Your task to perform on an android device: Open location settings Image 0: 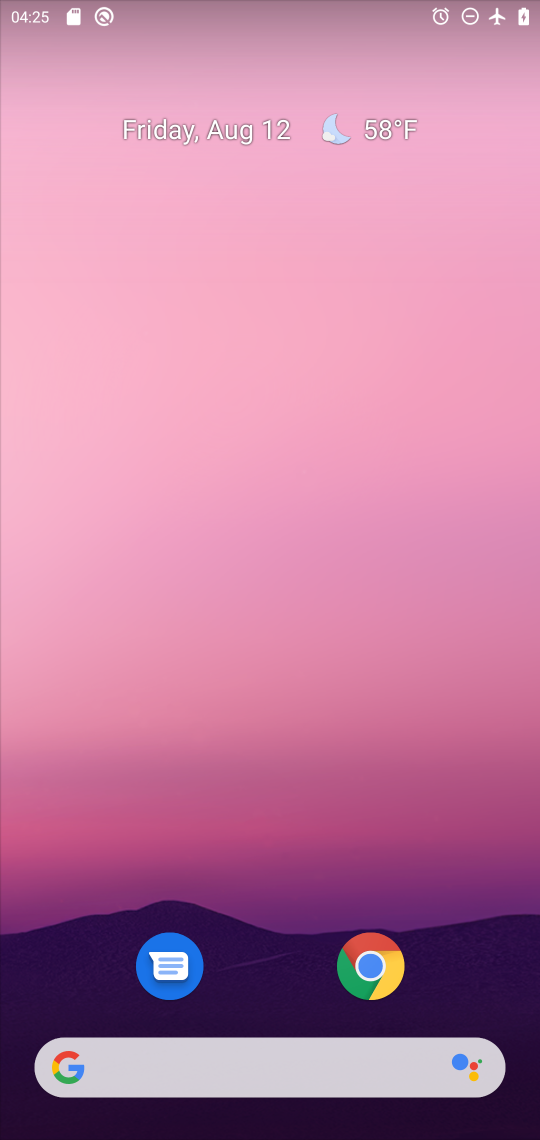
Step 0: drag from (287, 928) to (376, 74)
Your task to perform on an android device: Open location settings Image 1: 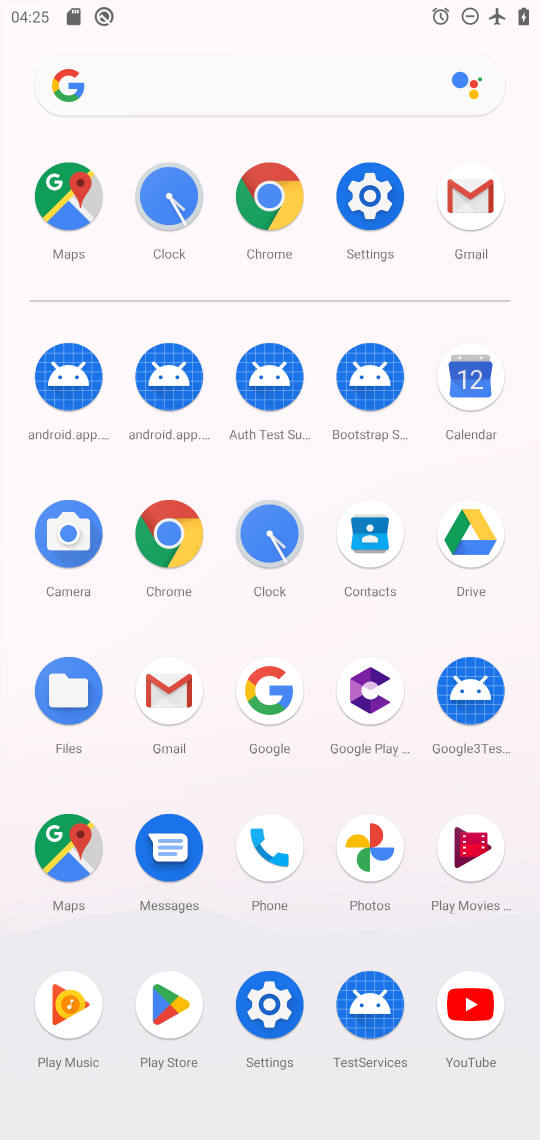
Step 1: click (267, 1003)
Your task to perform on an android device: Open location settings Image 2: 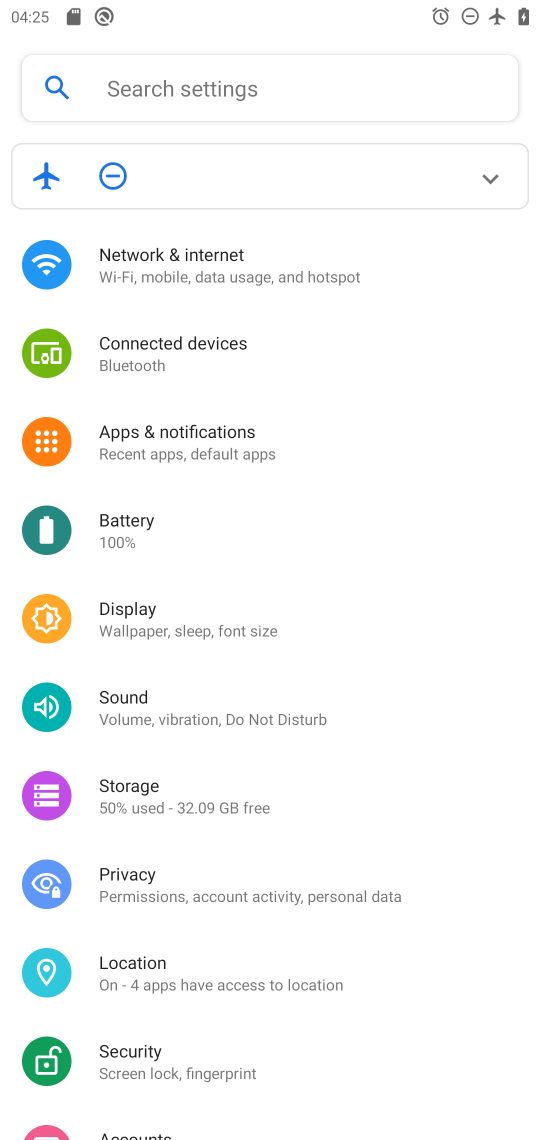
Step 2: click (251, 965)
Your task to perform on an android device: Open location settings Image 3: 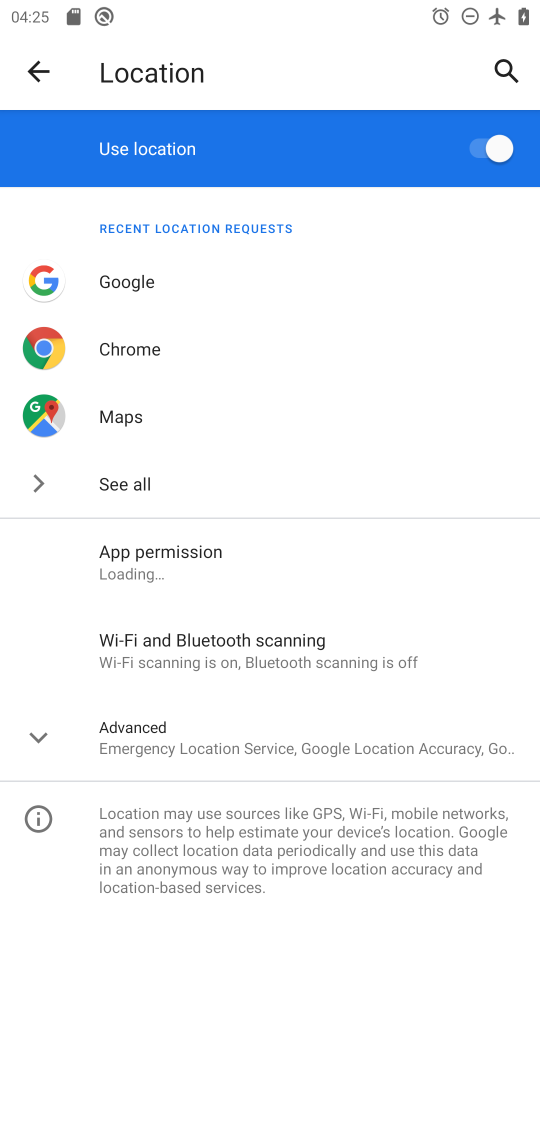
Step 3: task complete